Your task to perform on an android device: Turn off the flashlight Image 0: 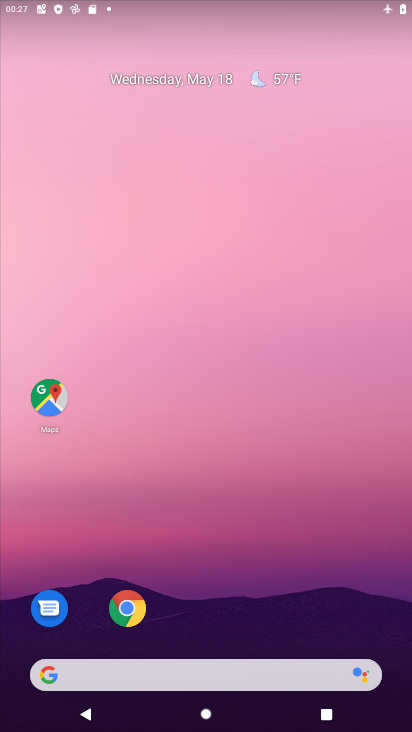
Step 0: drag from (251, 555) to (99, 79)
Your task to perform on an android device: Turn off the flashlight Image 1: 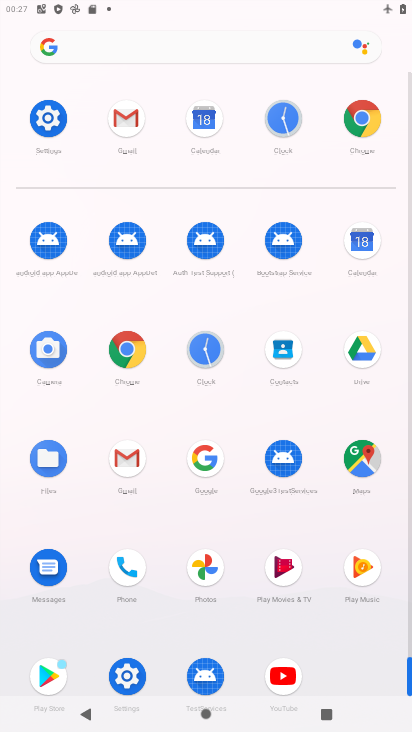
Step 1: click (50, 120)
Your task to perform on an android device: Turn off the flashlight Image 2: 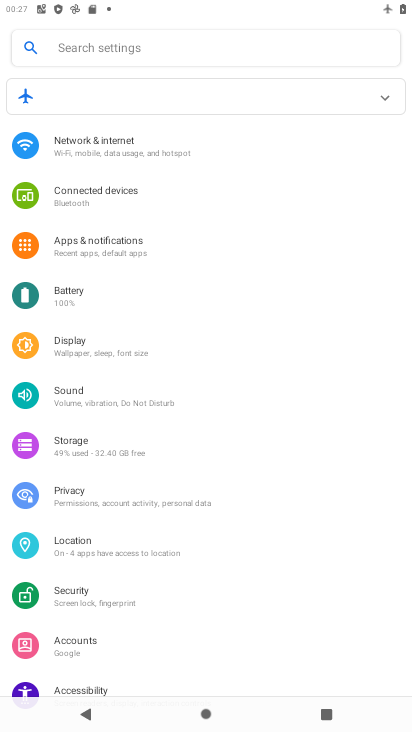
Step 2: click (102, 238)
Your task to perform on an android device: Turn off the flashlight Image 3: 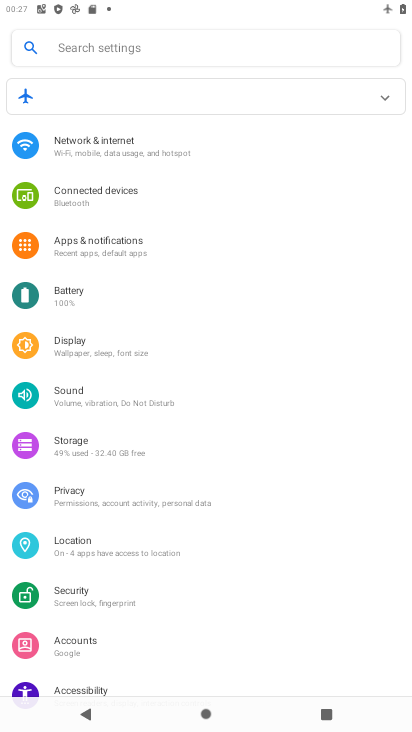
Step 3: click (102, 238)
Your task to perform on an android device: Turn off the flashlight Image 4: 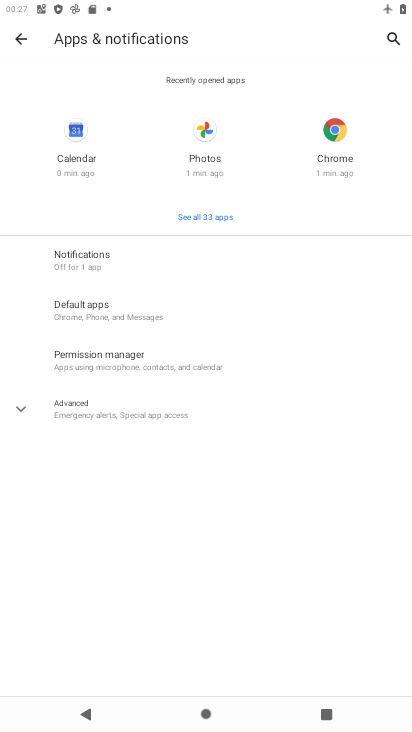
Step 4: task complete